Your task to perform on an android device: turn on bluetooth scan Image 0: 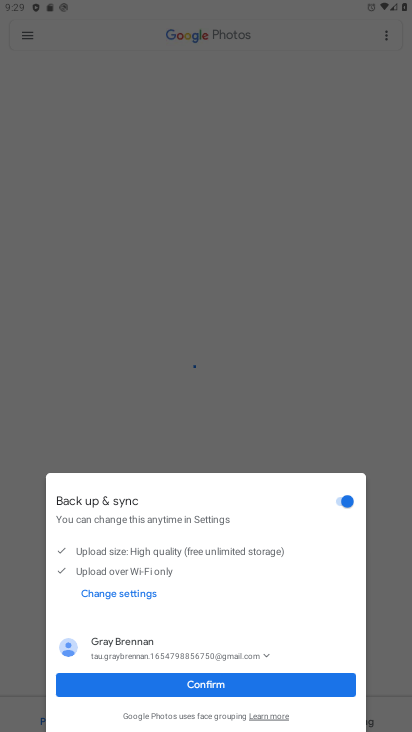
Step 0: press home button
Your task to perform on an android device: turn on bluetooth scan Image 1: 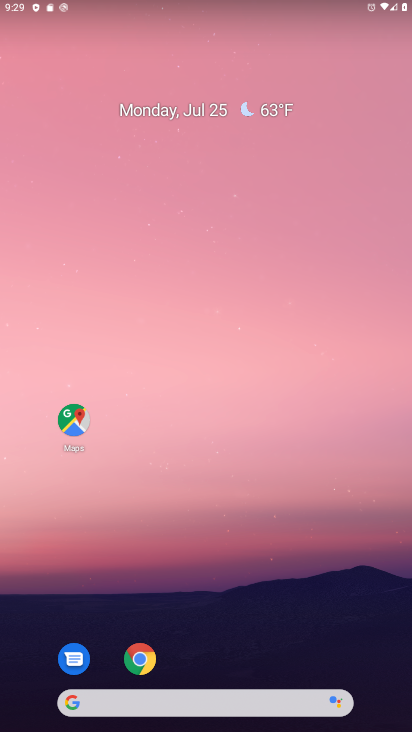
Step 1: drag from (235, 678) to (272, 283)
Your task to perform on an android device: turn on bluetooth scan Image 2: 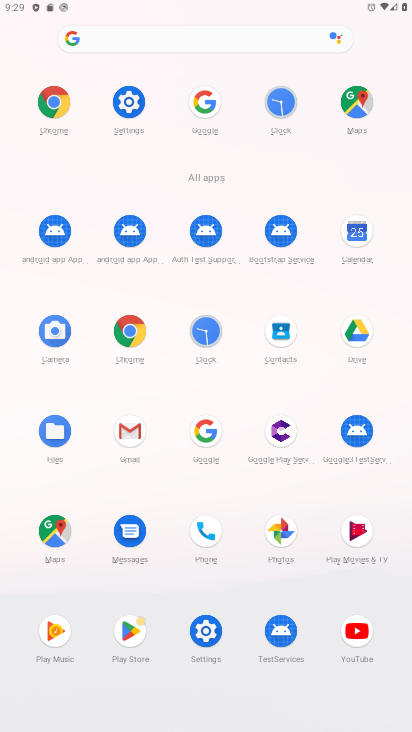
Step 2: click (134, 96)
Your task to perform on an android device: turn on bluetooth scan Image 3: 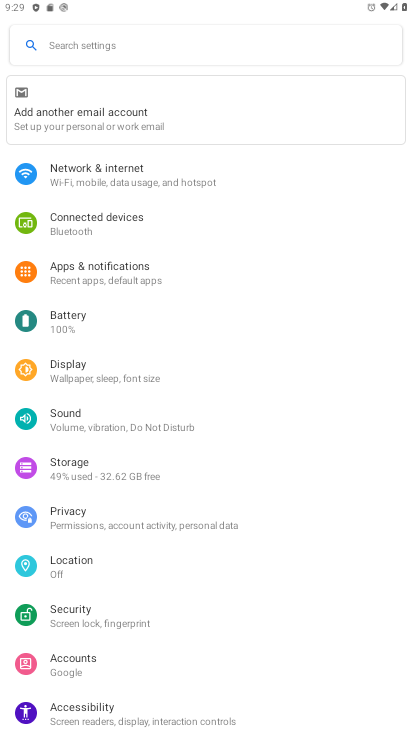
Step 3: click (56, 568)
Your task to perform on an android device: turn on bluetooth scan Image 4: 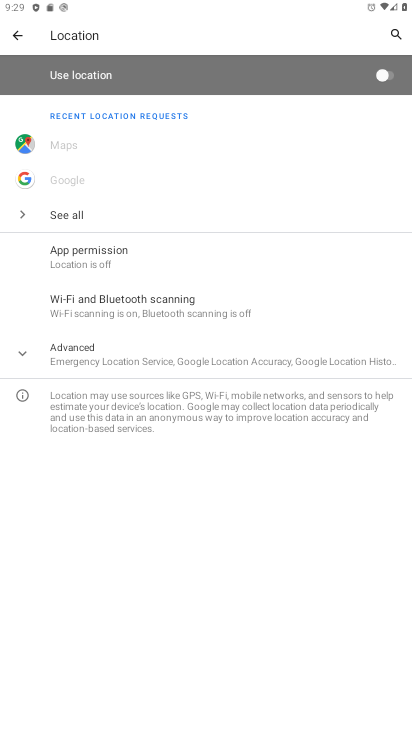
Step 4: click (133, 304)
Your task to perform on an android device: turn on bluetooth scan Image 5: 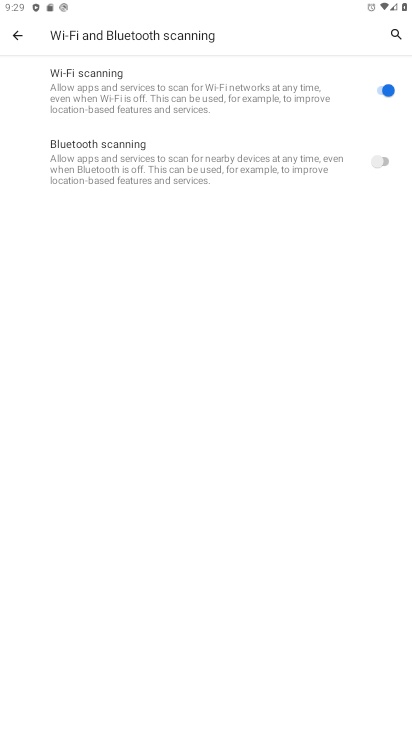
Step 5: click (379, 158)
Your task to perform on an android device: turn on bluetooth scan Image 6: 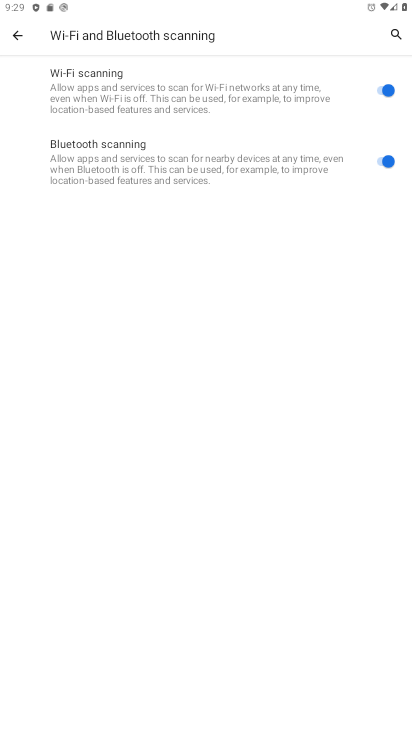
Step 6: task complete